Your task to perform on an android device: change notification settings in the gmail app Image 0: 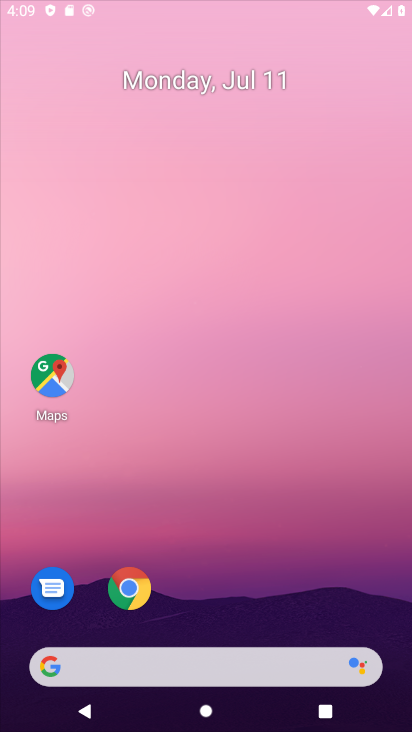
Step 0: press back button
Your task to perform on an android device: change notification settings in the gmail app Image 1: 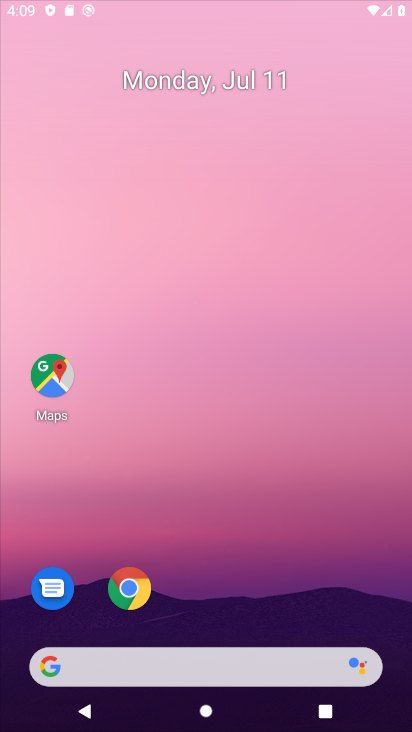
Step 1: press home button
Your task to perform on an android device: change notification settings in the gmail app Image 2: 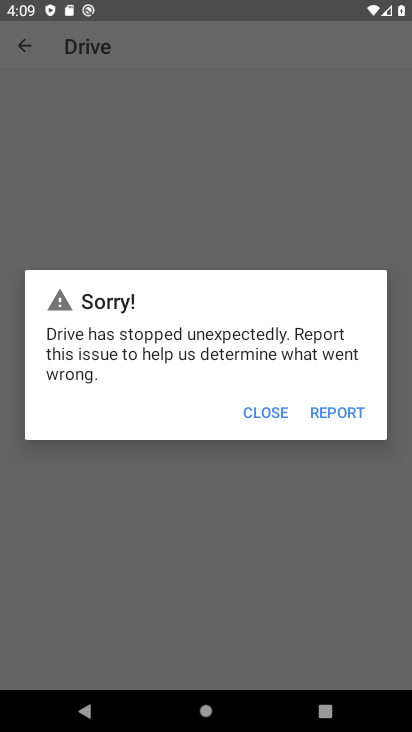
Step 2: click (211, 143)
Your task to perform on an android device: change notification settings in the gmail app Image 3: 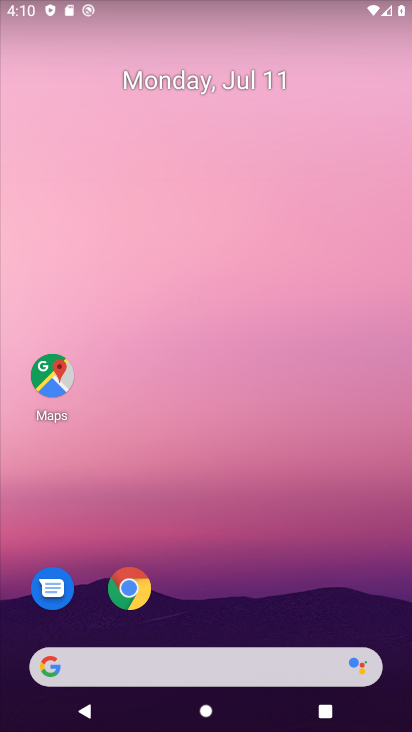
Step 3: drag from (207, 506) to (175, 295)
Your task to perform on an android device: change notification settings in the gmail app Image 4: 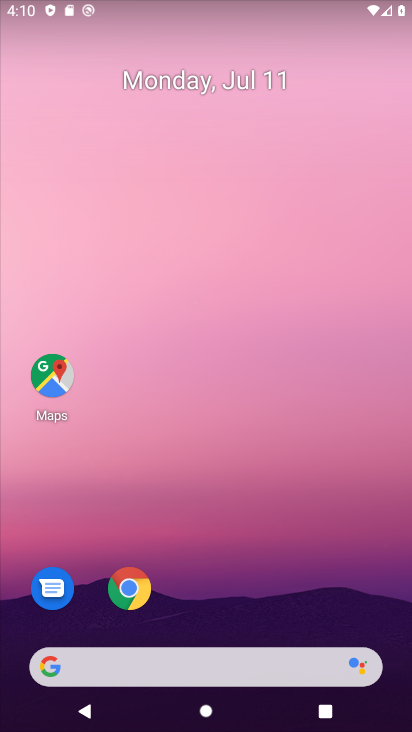
Step 4: drag from (251, 691) to (185, 101)
Your task to perform on an android device: change notification settings in the gmail app Image 5: 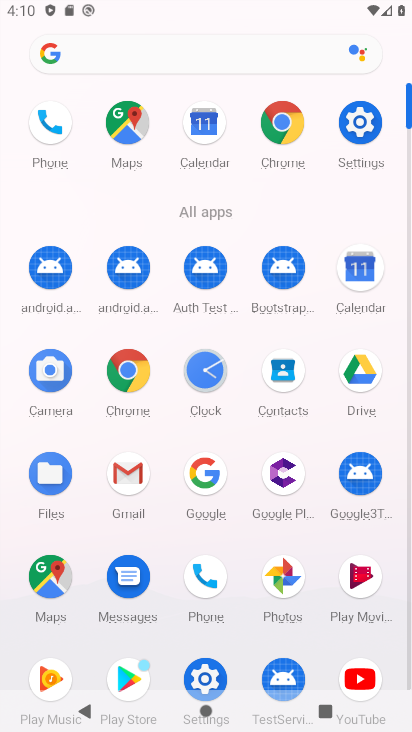
Step 5: click (356, 120)
Your task to perform on an android device: change notification settings in the gmail app Image 6: 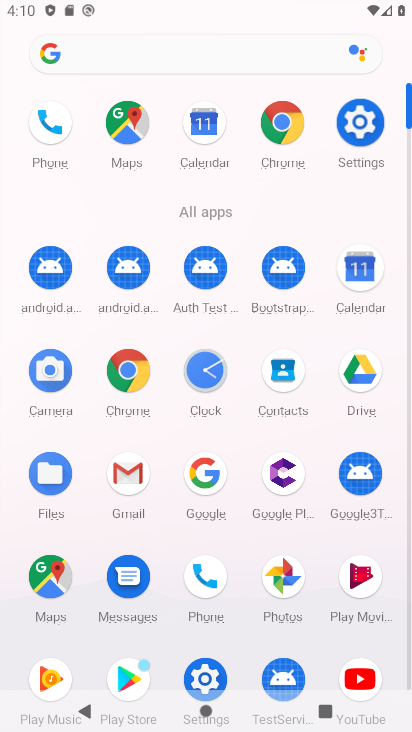
Step 6: click (355, 119)
Your task to perform on an android device: change notification settings in the gmail app Image 7: 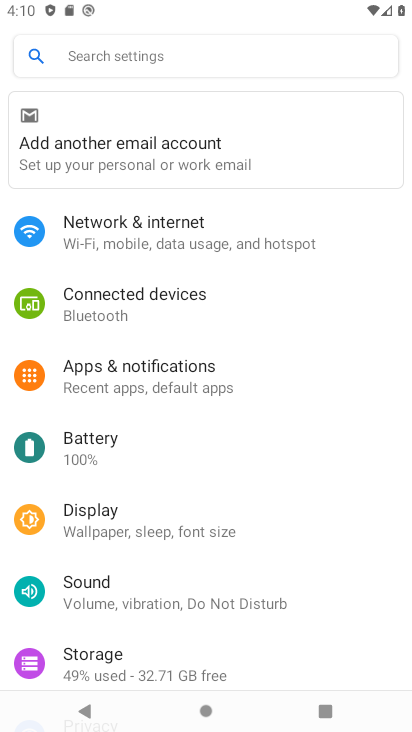
Step 7: click (159, 381)
Your task to perform on an android device: change notification settings in the gmail app Image 8: 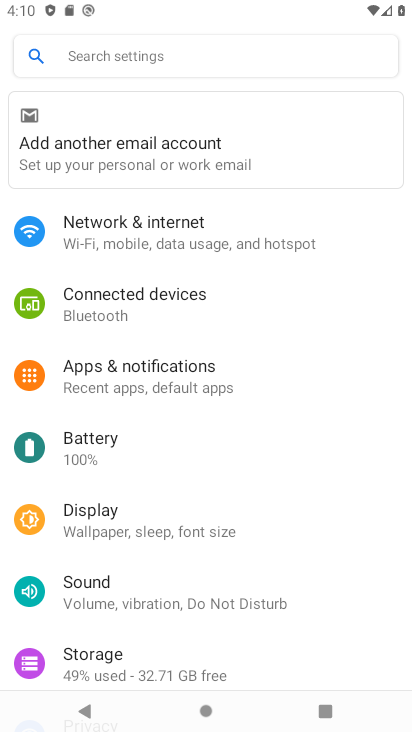
Step 8: click (159, 381)
Your task to perform on an android device: change notification settings in the gmail app Image 9: 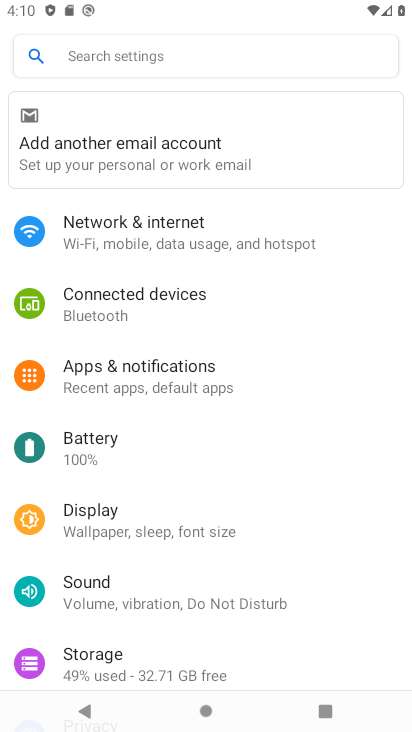
Step 9: click (159, 381)
Your task to perform on an android device: change notification settings in the gmail app Image 10: 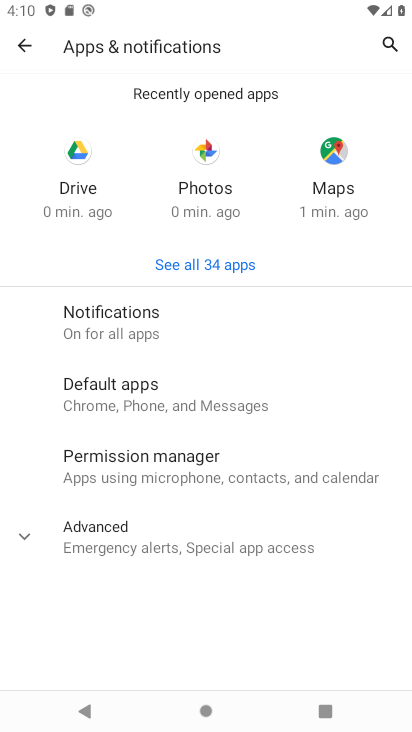
Step 10: click (24, 44)
Your task to perform on an android device: change notification settings in the gmail app Image 11: 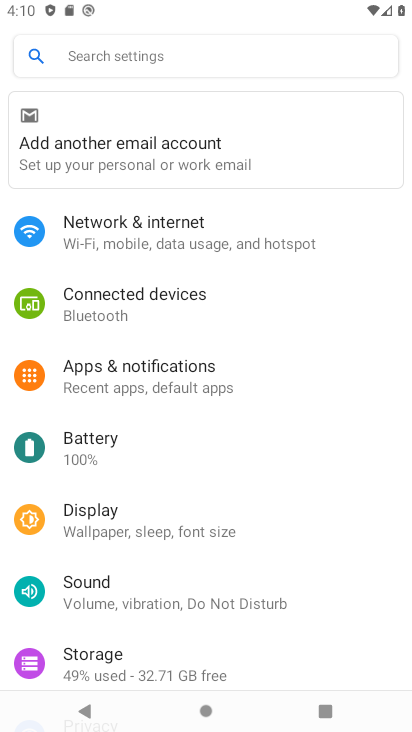
Step 11: press back button
Your task to perform on an android device: change notification settings in the gmail app Image 12: 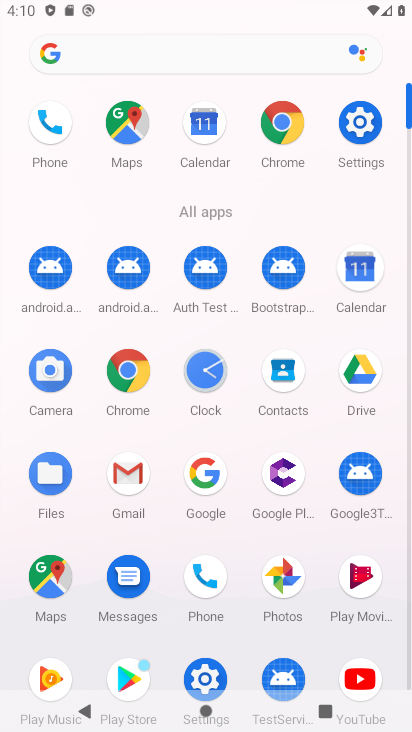
Step 12: click (133, 467)
Your task to perform on an android device: change notification settings in the gmail app Image 13: 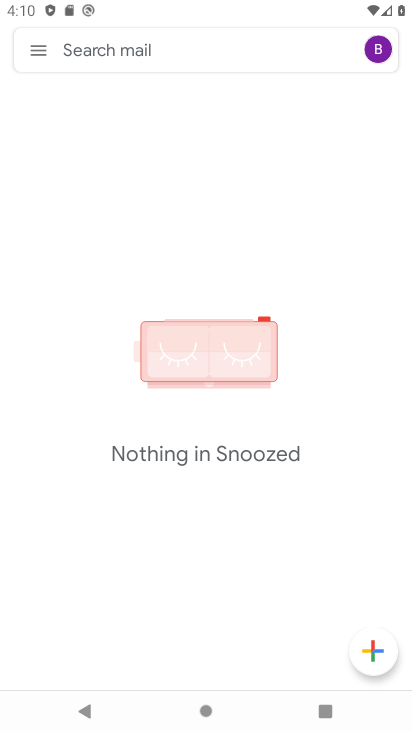
Step 13: click (29, 43)
Your task to perform on an android device: change notification settings in the gmail app Image 14: 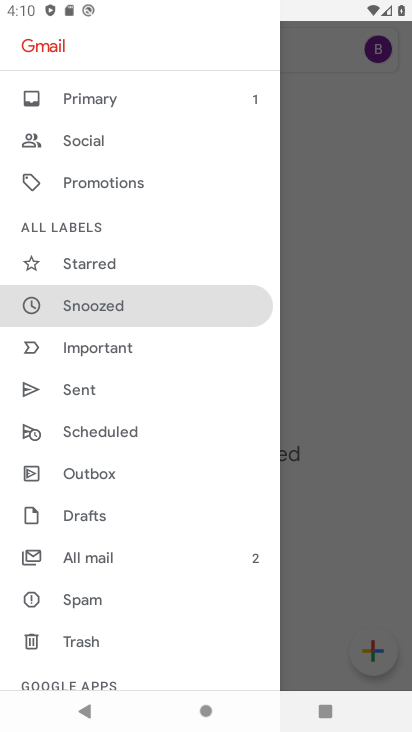
Step 14: drag from (99, 579) to (131, 238)
Your task to perform on an android device: change notification settings in the gmail app Image 15: 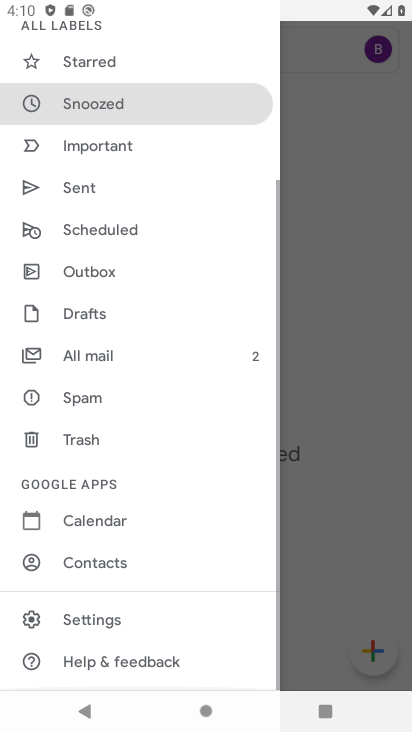
Step 15: drag from (156, 473) to (192, 228)
Your task to perform on an android device: change notification settings in the gmail app Image 16: 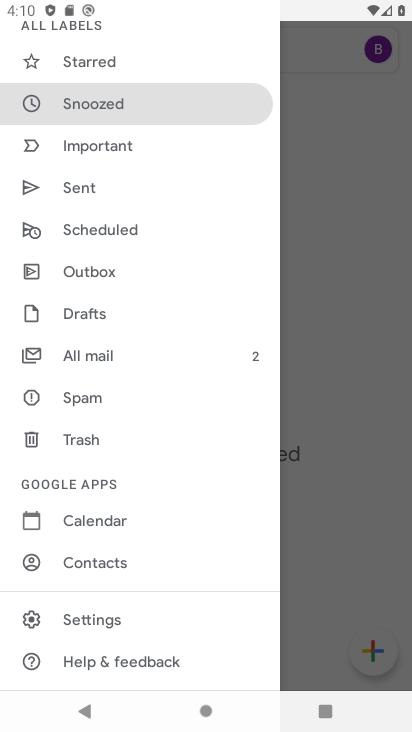
Step 16: click (90, 619)
Your task to perform on an android device: change notification settings in the gmail app Image 17: 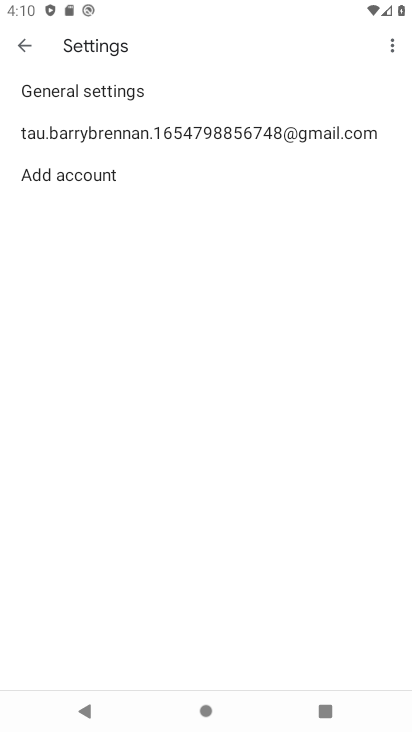
Step 17: click (30, 44)
Your task to perform on an android device: change notification settings in the gmail app Image 18: 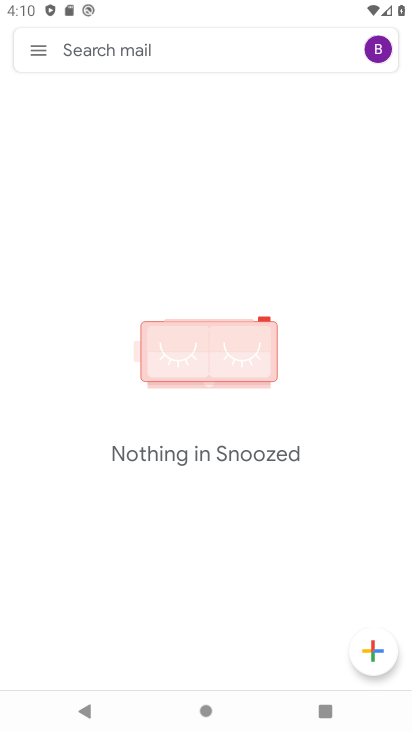
Step 18: press back button
Your task to perform on an android device: change notification settings in the gmail app Image 19: 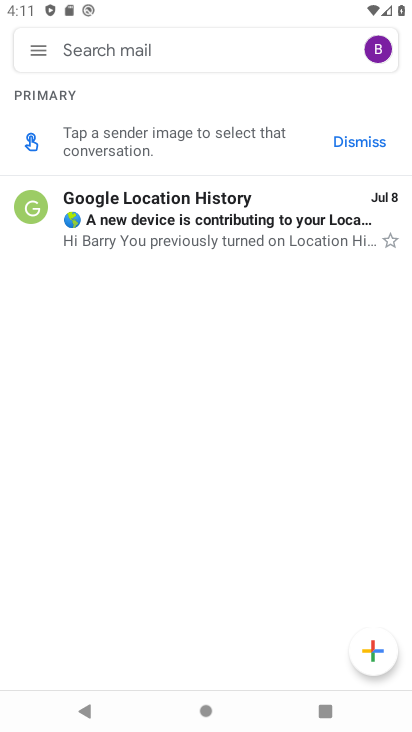
Step 19: press back button
Your task to perform on an android device: change notification settings in the gmail app Image 20: 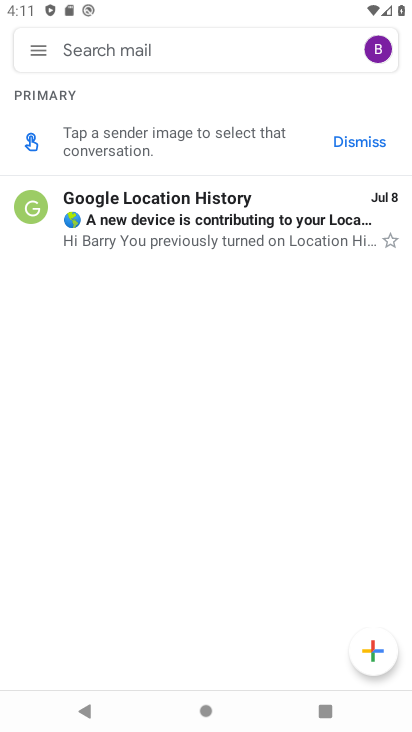
Step 20: press back button
Your task to perform on an android device: change notification settings in the gmail app Image 21: 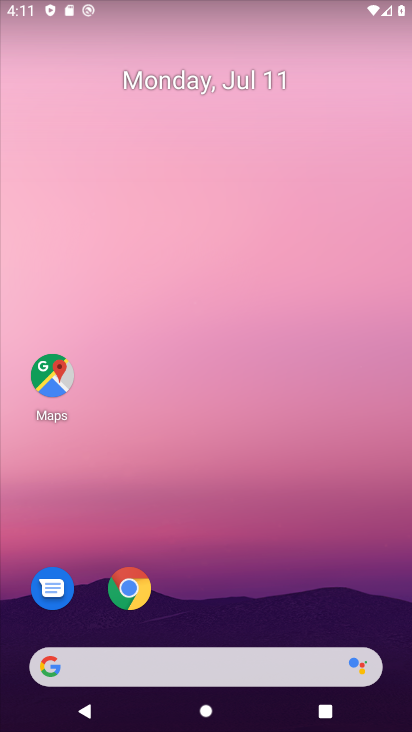
Step 21: drag from (306, 548) to (263, 134)
Your task to perform on an android device: change notification settings in the gmail app Image 22: 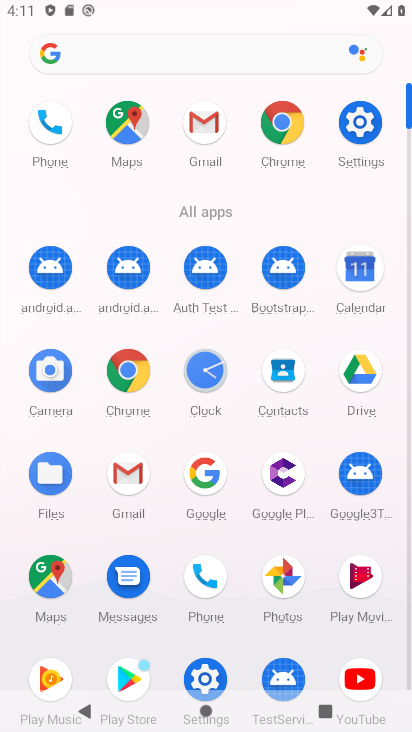
Step 22: click (132, 469)
Your task to perform on an android device: change notification settings in the gmail app Image 23: 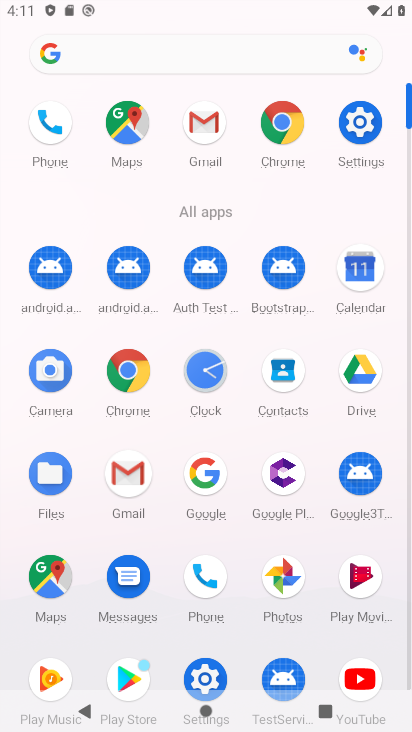
Step 23: click (133, 468)
Your task to perform on an android device: change notification settings in the gmail app Image 24: 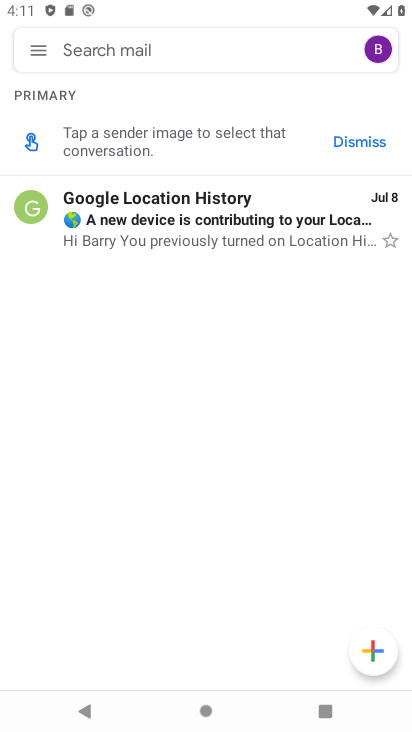
Step 24: click (36, 51)
Your task to perform on an android device: change notification settings in the gmail app Image 25: 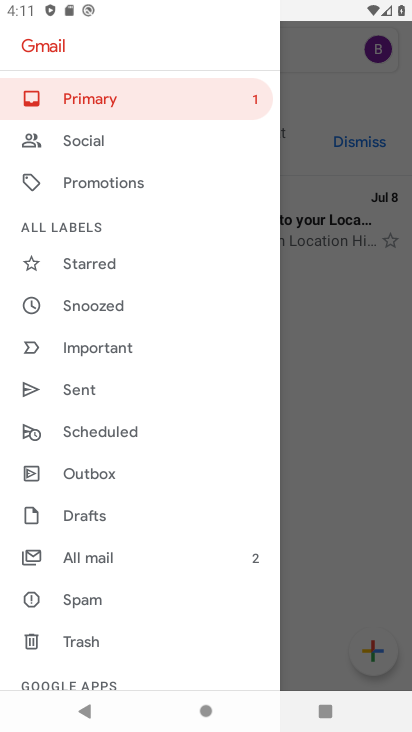
Step 25: drag from (109, 577) to (161, 240)
Your task to perform on an android device: change notification settings in the gmail app Image 26: 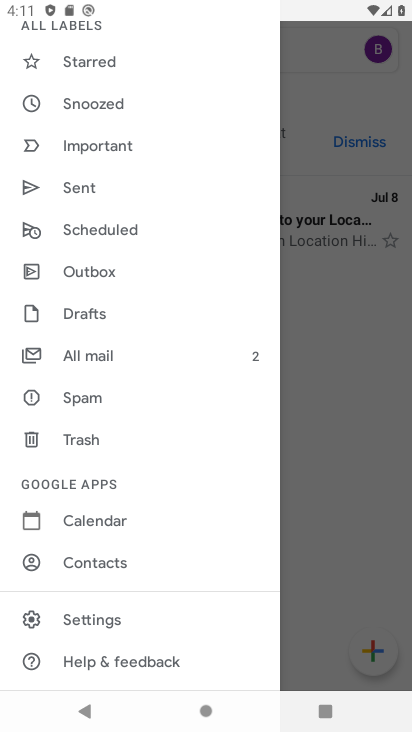
Step 26: drag from (145, 500) to (145, 249)
Your task to perform on an android device: change notification settings in the gmail app Image 27: 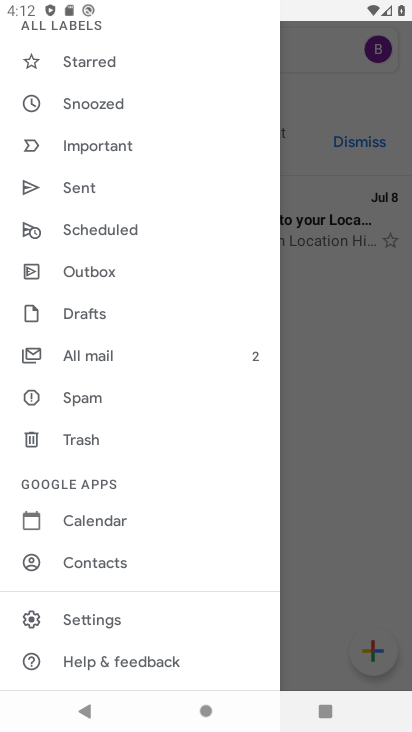
Step 27: click (82, 607)
Your task to perform on an android device: change notification settings in the gmail app Image 28: 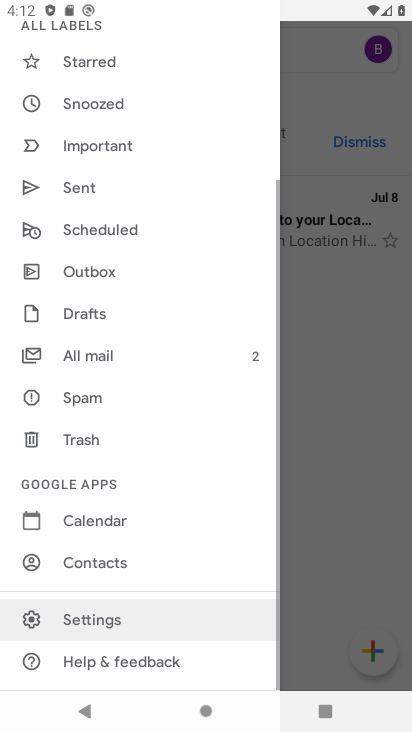
Step 28: click (86, 611)
Your task to perform on an android device: change notification settings in the gmail app Image 29: 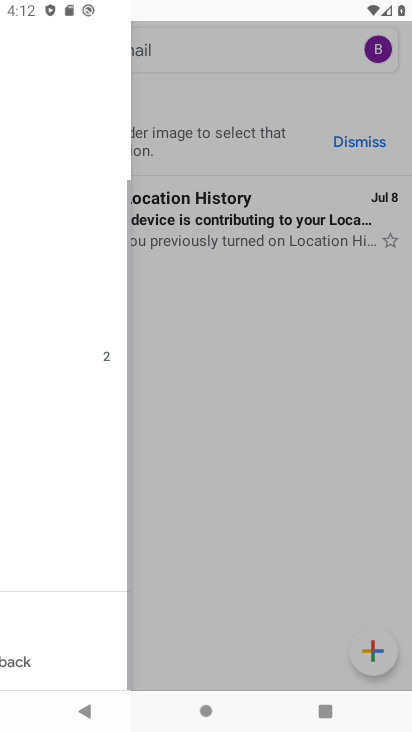
Step 29: click (91, 612)
Your task to perform on an android device: change notification settings in the gmail app Image 30: 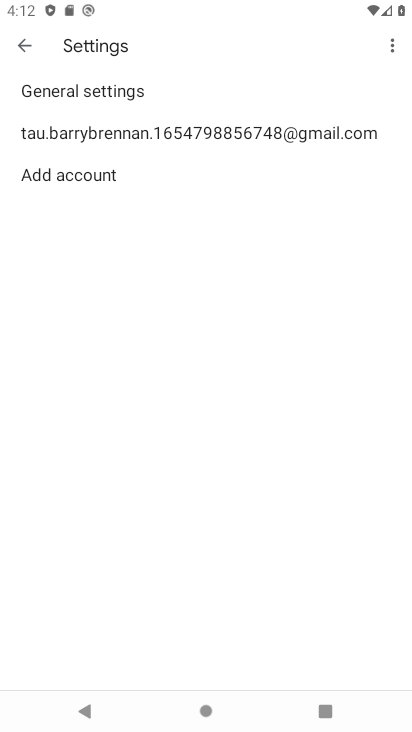
Step 30: click (160, 128)
Your task to perform on an android device: change notification settings in the gmail app Image 31: 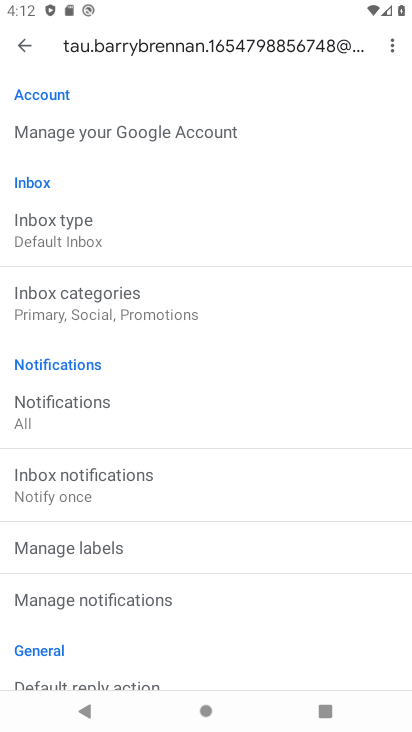
Step 31: drag from (201, 598) to (241, 279)
Your task to perform on an android device: change notification settings in the gmail app Image 32: 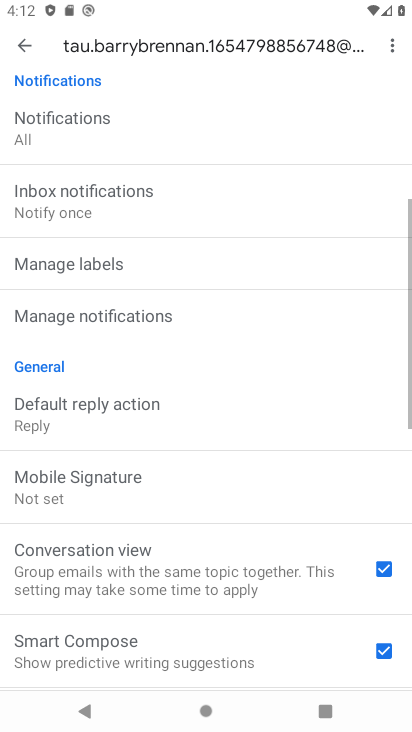
Step 32: drag from (238, 561) to (259, 307)
Your task to perform on an android device: change notification settings in the gmail app Image 33: 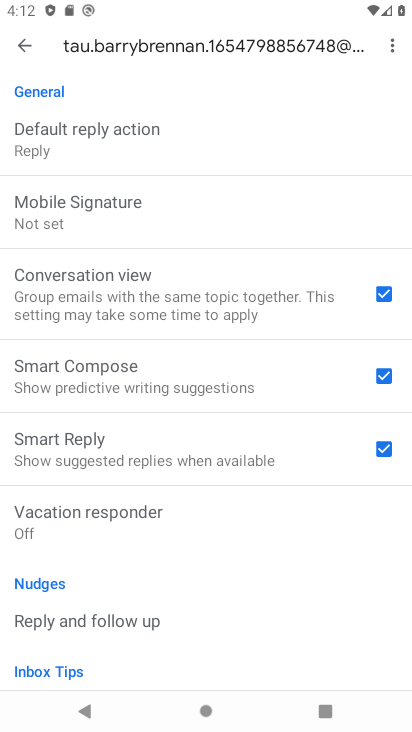
Step 33: drag from (160, 446) to (154, 275)
Your task to perform on an android device: change notification settings in the gmail app Image 34: 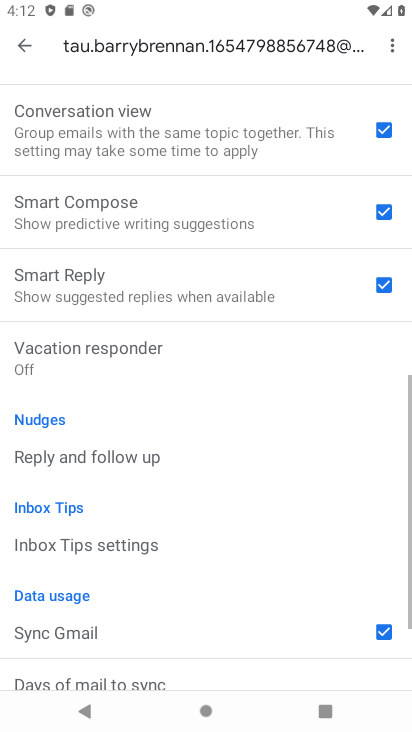
Step 34: drag from (196, 420) to (188, 185)
Your task to perform on an android device: change notification settings in the gmail app Image 35: 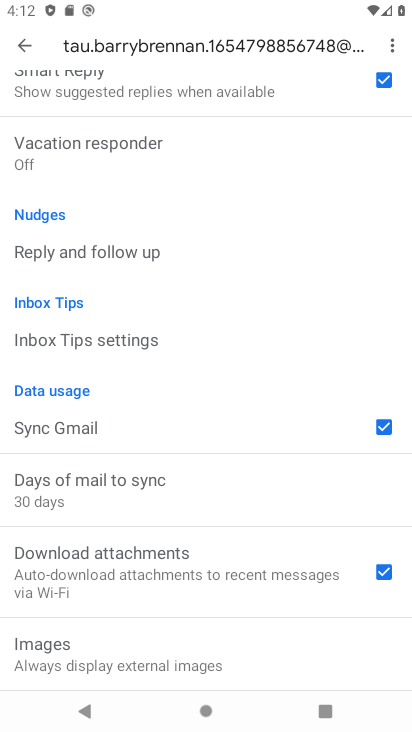
Step 35: drag from (218, 672) to (270, 616)
Your task to perform on an android device: change notification settings in the gmail app Image 36: 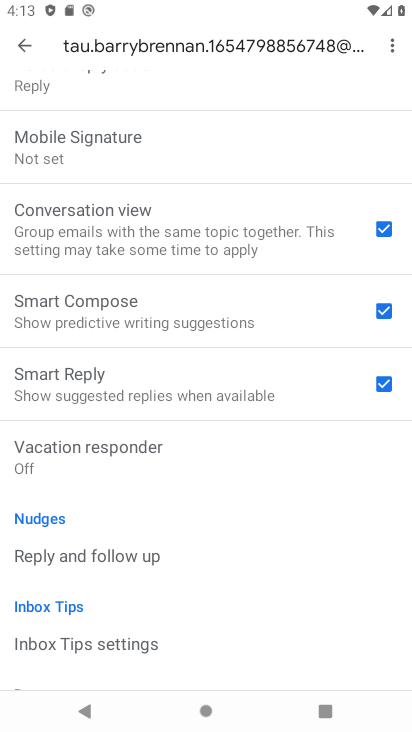
Step 36: drag from (134, 275) to (147, 482)
Your task to perform on an android device: change notification settings in the gmail app Image 37: 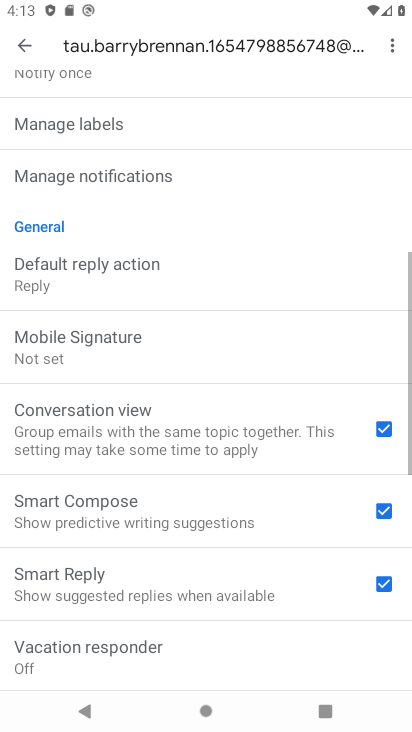
Step 37: drag from (175, 268) to (217, 711)
Your task to perform on an android device: change notification settings in the gmail app Image 38: 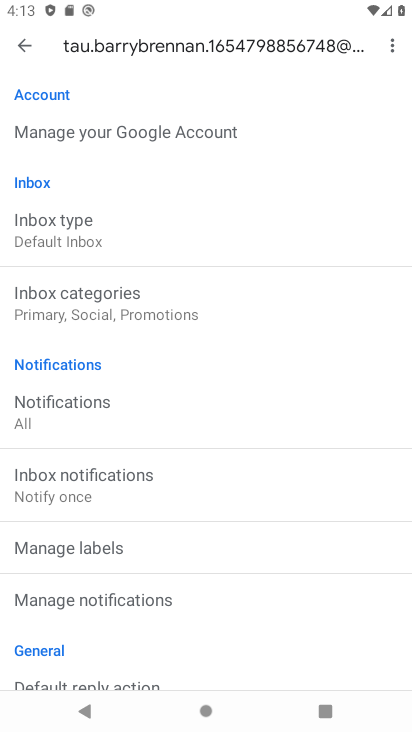
Step 38: click (53, 388)
Your task to perform on an android device: change notification settings in the gmail app Image 39: 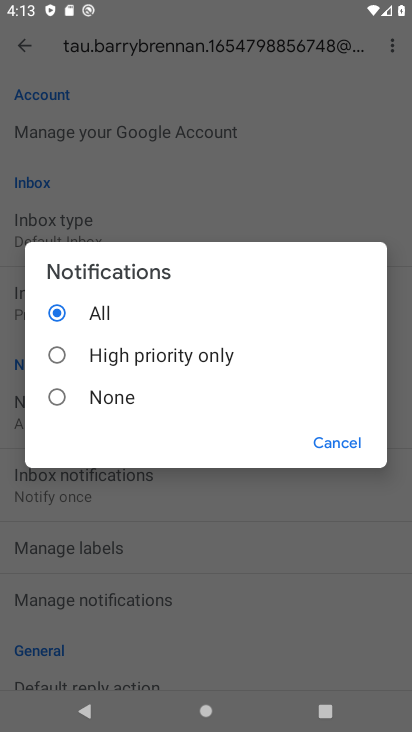
Step 39: click (345, 446)
Your task to perform on an android device: change notification settings in the gmail app Image 40: 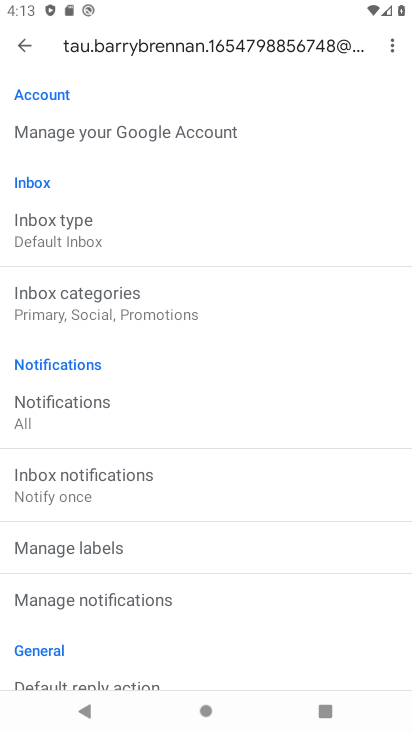
Step 40: click (68, 403)
Your task to perform on an android device: change notification settings in the gmail app Image 41: 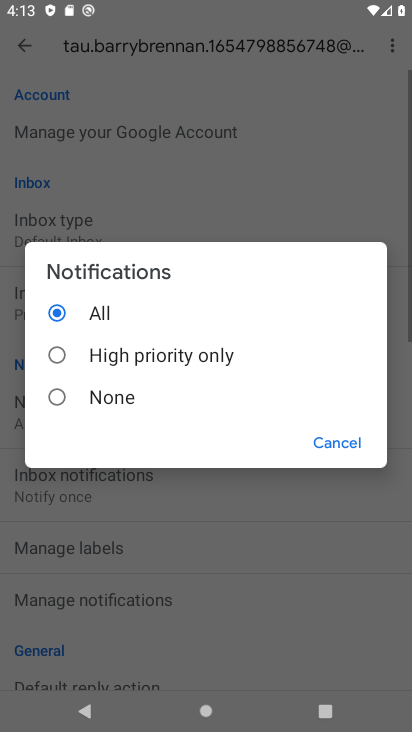
Step 41: click (55, 354)
Your task to perform on an android device: change notification settings in the gmail app Image 42: 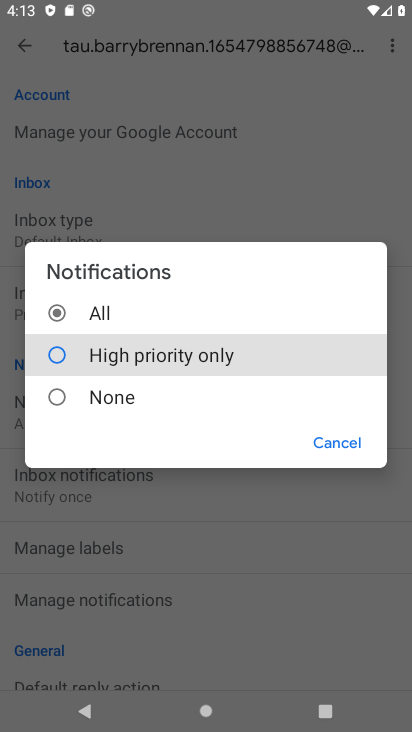
Step 42: click (59, 347)
Your task to perform on an android device: change notification settings in the gmail app Image 43: 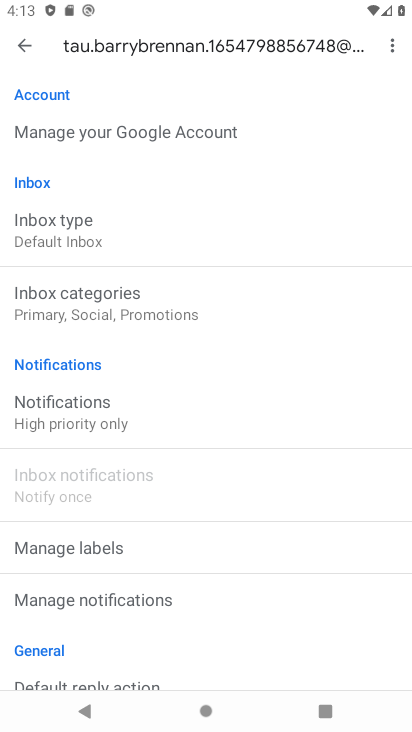
Step 43: task complete